Your task to perform on an android device: turn off location Image 0: 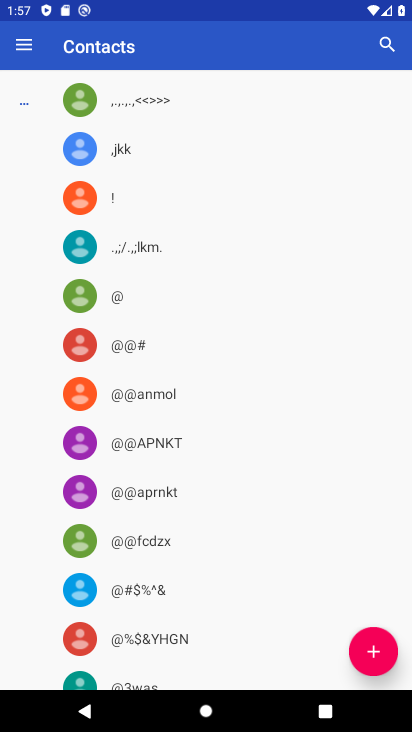
Step 0: press back button
Your task to perform on an android device: turn off location Image 1: 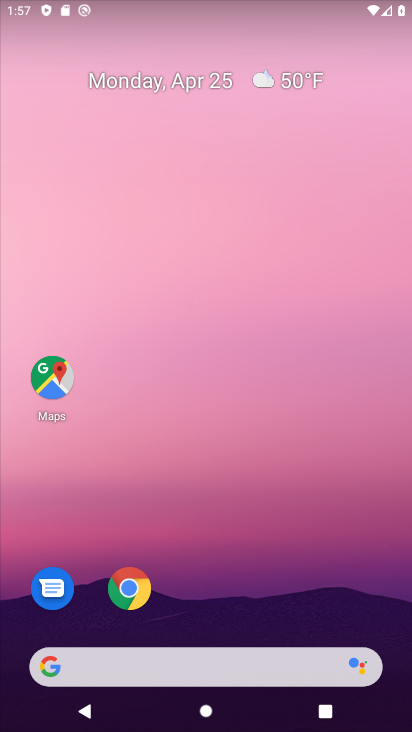
Step 1: drag from (211, 587) to (307, 42)
Your task to perform on an android device: turn off location Image 2: 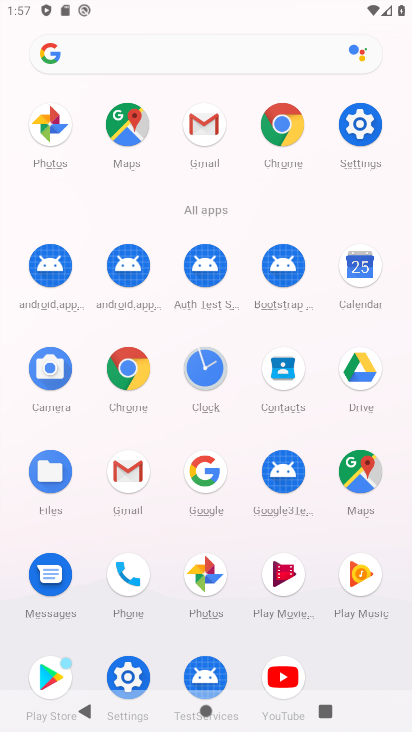
Step 2: click (126, 665)
Your task to perform on an android device: turn off location Image 3: 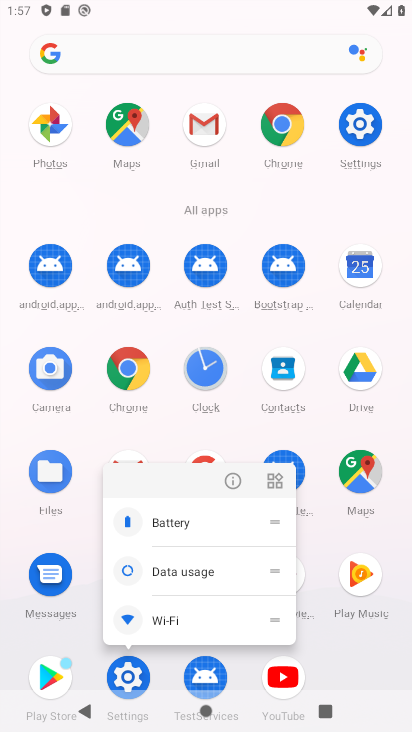
Step 3: click (131, 685)
Your task to perform on an android device: turn off location Image 4: 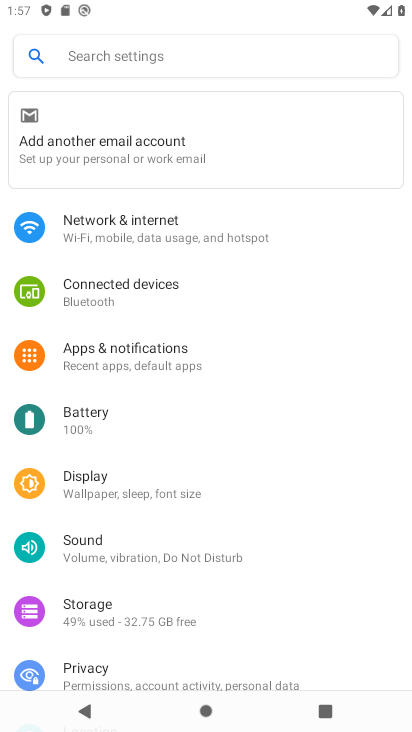
Step 4: drag from (180, 597) to (223, 226)
Your task to perform on an android device: turn off location Image 5: 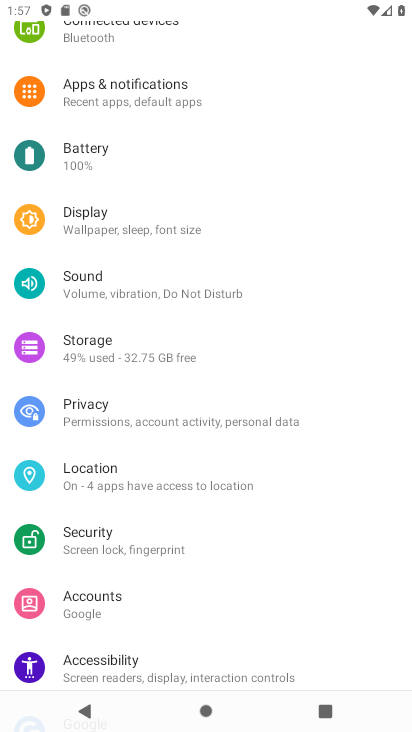
Step 5: click (120, 477)
Your task to perform on an android device: turn off location Image 6: 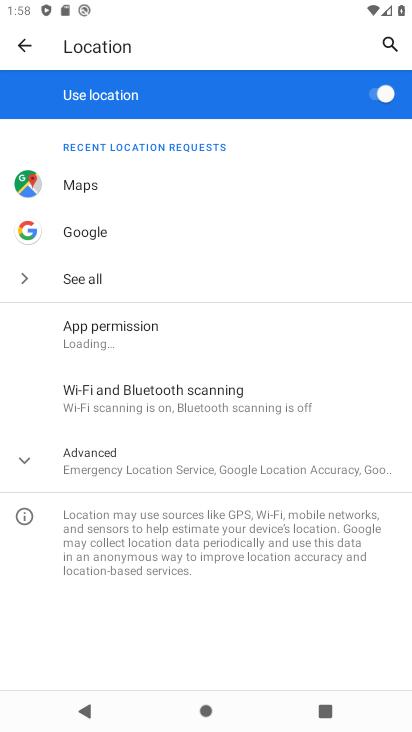
Step 6: click (379, 93)
Your task to perform on an android device: turn off location Image 7: 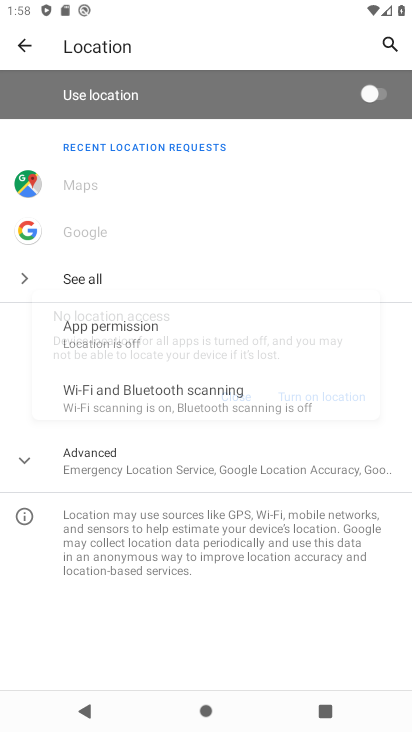
Step 7: task complete